Your task to perform on an android device: Open the web browser Image 0: 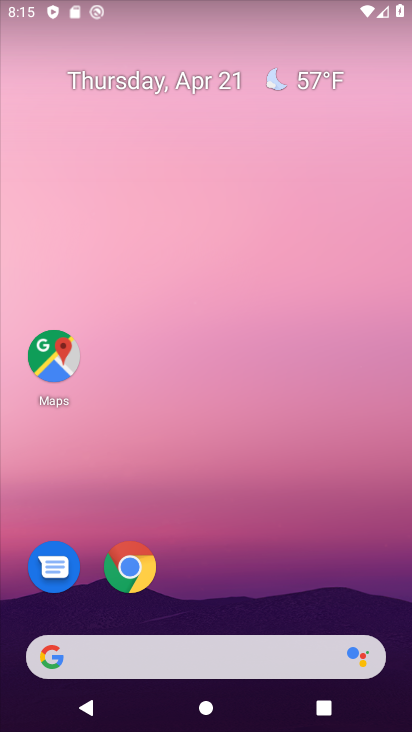
Step 0: click (138, 572)
Your task to perform on an android device: Open the web browser Image 1: 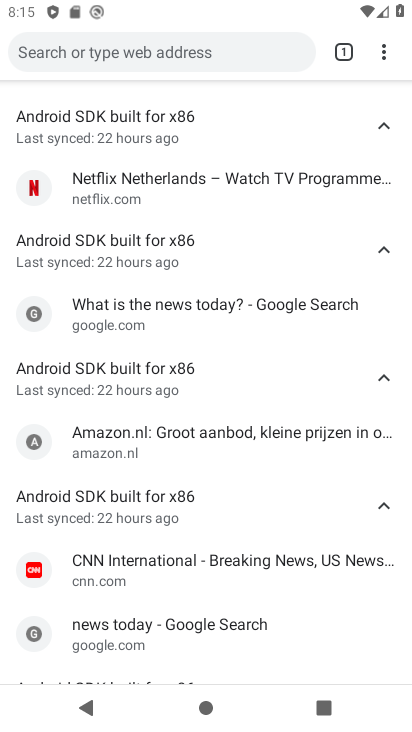
Step 1: task complete